Your task to perform on an android device: Go to notification settings Image 0: 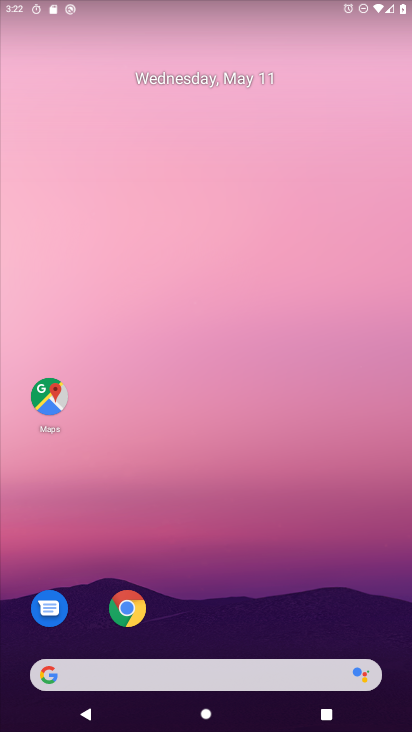
Step 0: drag from (228, 564) to (237, 132)
Your task to perform on an android device: Go to notification settings Image 1: 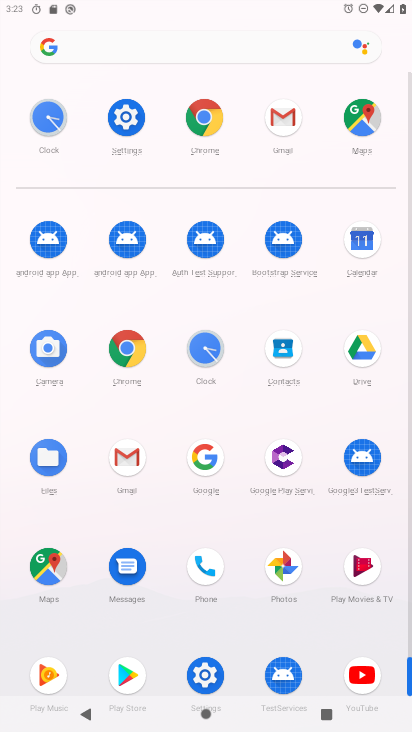
Step 1: click (128, 133)
Your task to perform on an android device: Go to notification settings Image 2: 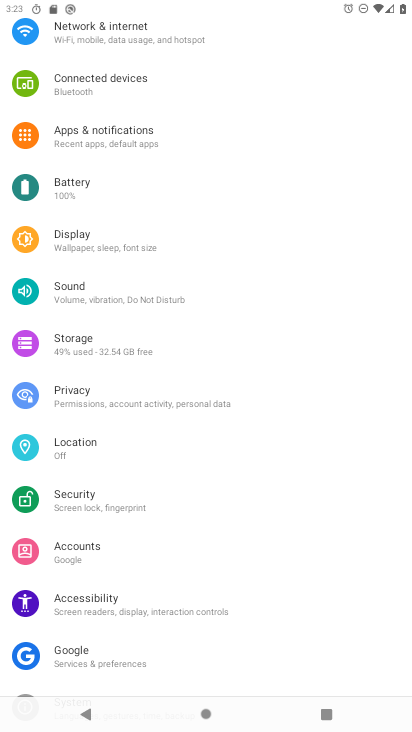
Step 2: drag from (174, 352) to (152, 538)
Your task to perform on an android device: Go to notification settings Image 3: 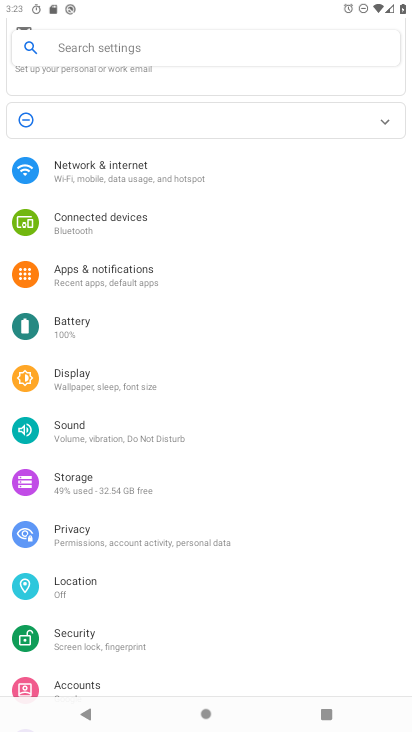
Step 3: click (161, 269)
Your task to perform on an android device: Go to notification settings Image 4: 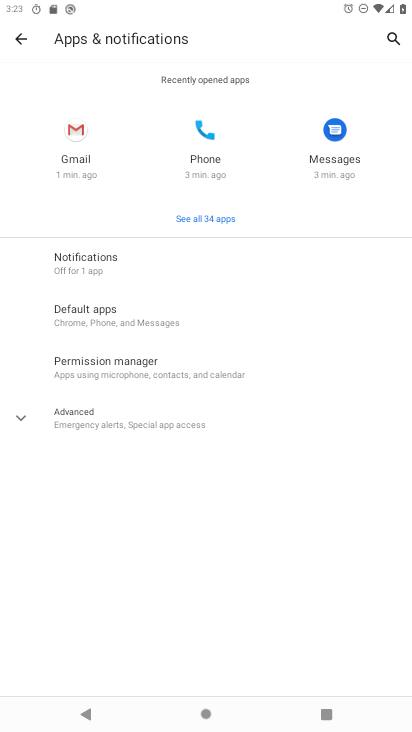
Step 4: click (90, 258)
Your task to perform on an android device: Go to notification settings Image 5: 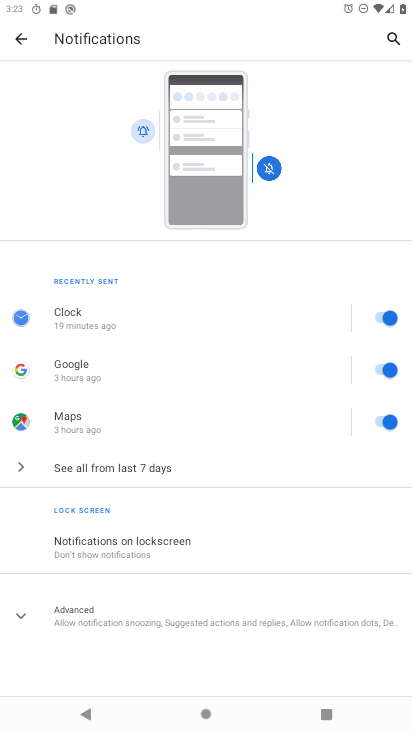
Step 5: task complete